Your task to perform on an android device: set default search engine in the chrome app Image 0: 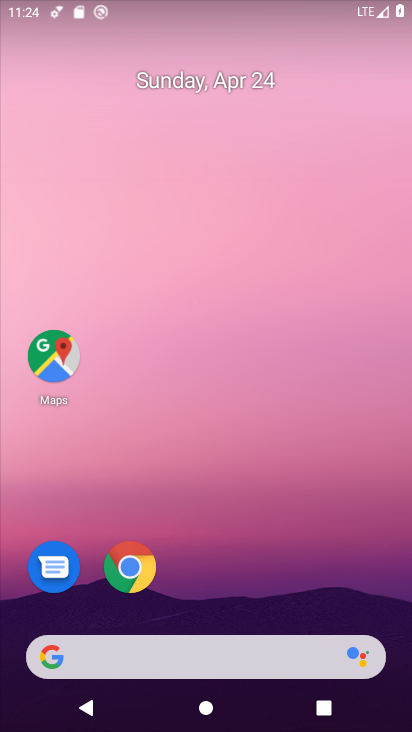
Step 0: drag from (264, 514) to (363, 30)
Your task to perform on an android device: set default search engine in the chrome app Image 1: 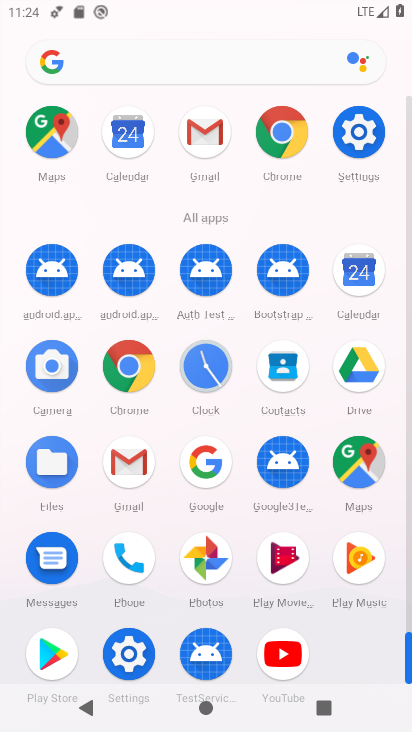
Step 1: click (285, 109)
Your task to perform on an android device: set default search engine in the chrome app Image 2: 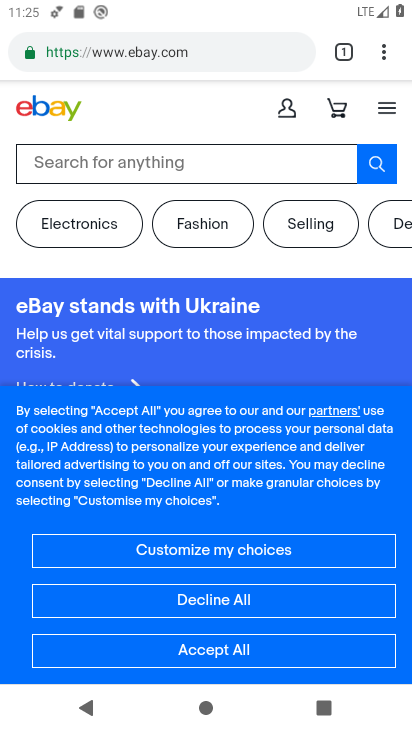
Step 2: click (381, 51)
Your task to perform on an android device: set default search engine in the chrome app Image 3: 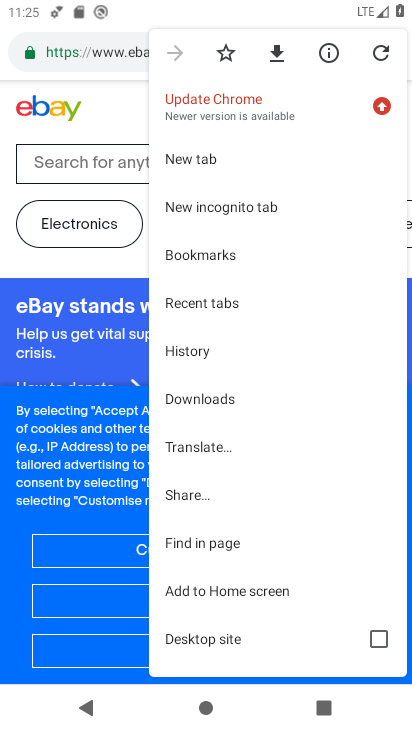
Step 3: drag from (228, 570) to (294, 236)
Your task to perform on an android device: set default search engine in the chrome app Image 4: 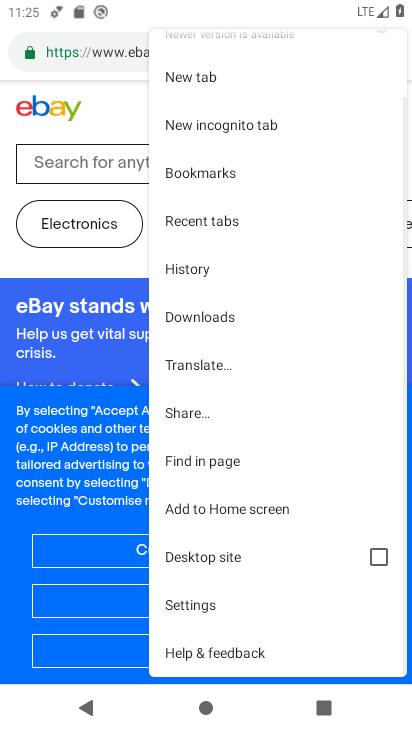
Step 4: click (232, 605)
Your task to perform on an android device: set default search engine in the chrome app Image 5: 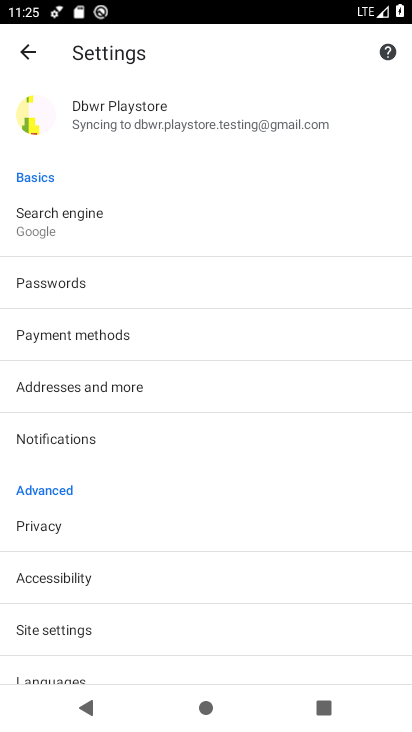
Step 5: click (122, 235)
Your task to perform on an android device: set default search engine in the chrome app Image 6: 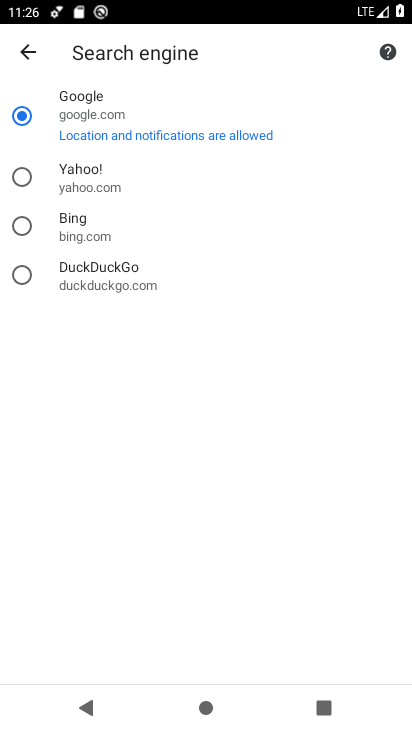
Step 6: task complete